Your task to perform on an android device: open app "ColorNote Notepad Notes" (install if not already installed) Image 0: 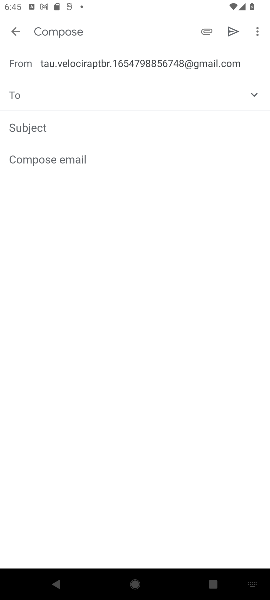
Step 0: press home button
Your task to perform on an android device: open app "ColorNote Notepad Notes" (install if not already installed) Image 1: 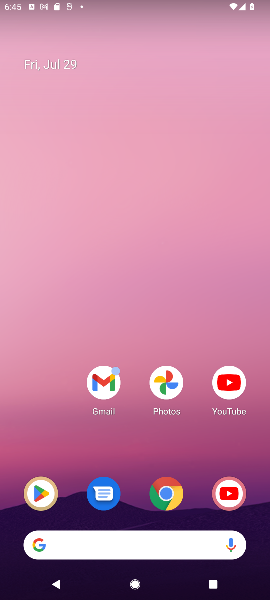
Step 1: click (160, 594)
Your task to perform on an android device: open app "ColorNote Notepad Notes" (install if not already installed) Image 2: 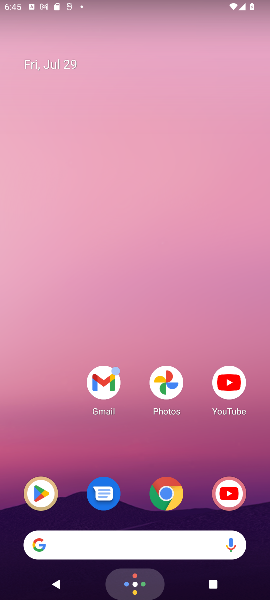
Step 2: drag from (161, 214) to (151, 103)
Your task to perform on an android device: open app "ColorNote Notepad Notes" (install if not already installed) Image 3: 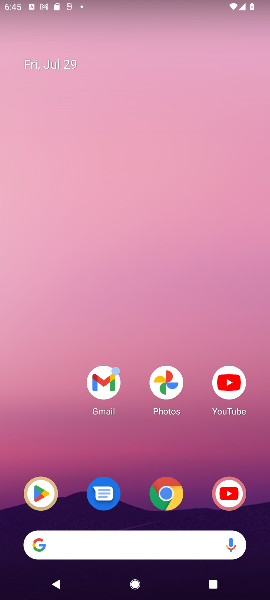
Step 3: click (43, 493)
Your task to perform on an android device: open app "ColorNote Notepad Notes" (install if not already installed) Image 4: 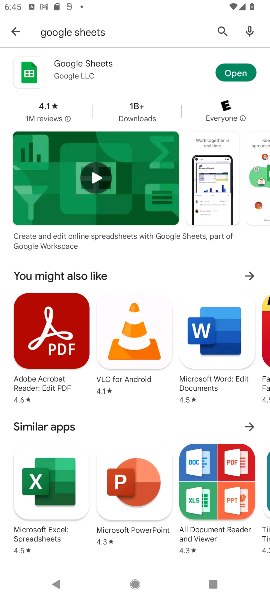
Step 4: click (220, 31)
Your task to perform on an android device: open app "ColorNote Notepad Notes" (install if not already installed) Image 5: 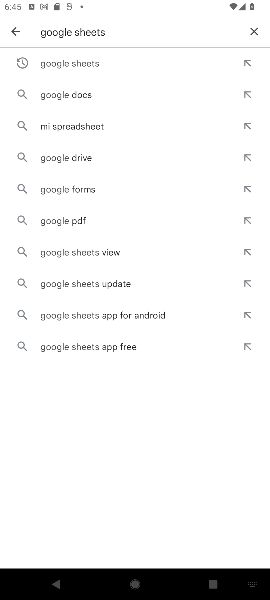
Step 5: click (251, 26)
Your task to perform on an android device: open app "ColorNote Notepad Notes" (install if not already installed) Image 6: 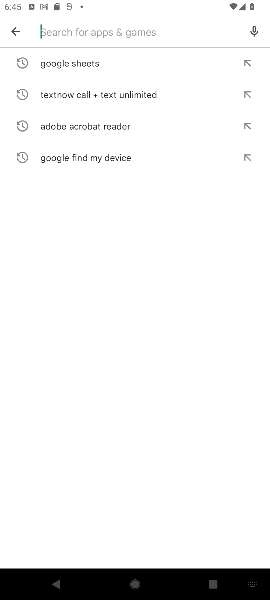
Step 6: type "ColorNote Notepad Notes"
Your task to perform on an android device: open app "ColorNote Notepad Notes" (install if not already installed) Image 7: 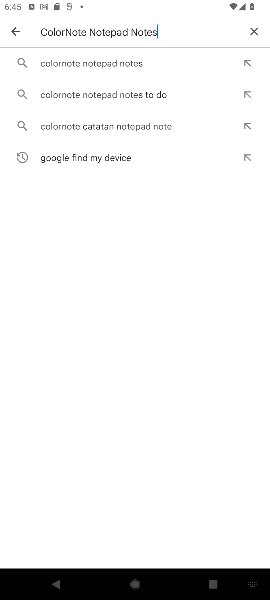
Step 7: type ""
Your task to perform on an android device: open app "ColorNote Notepad Notes" (install if not already installed) Image 8: 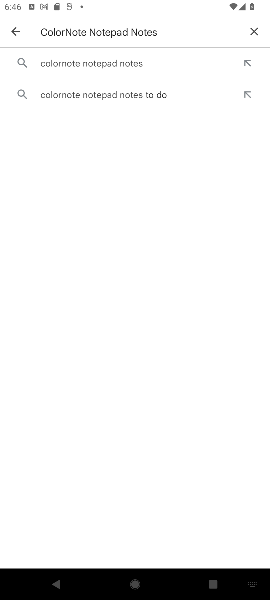
Step 8: click (121, 65)
Your task to perform on an android device: open app "ColorNote Notepad Notes" (install if not already installed) Image 9: 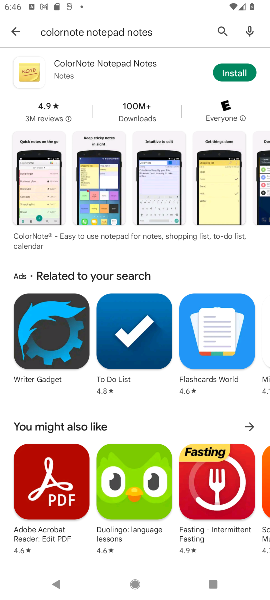
Step 9: click (236, 77)
Your task to perform on an android device: open app "ColorNote Notepad Notes" (install if not already installed) Image 10: 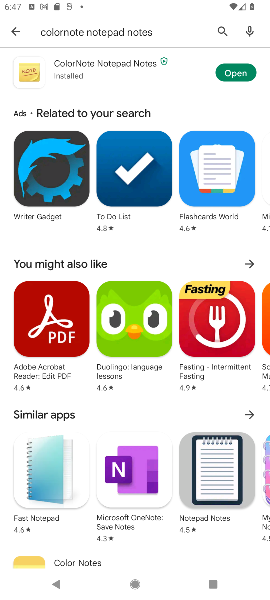
Step 10: task complete